Your task to perform on an android device: change the clock style Image 0: 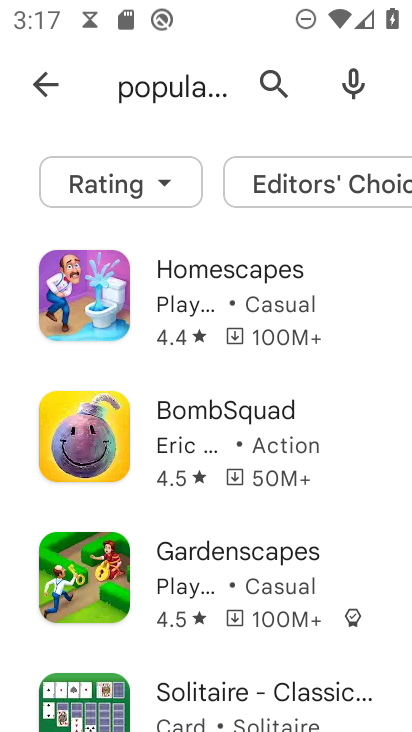
Step 0: press home button
Your task to perform on an android device: change the clock style Image 1: 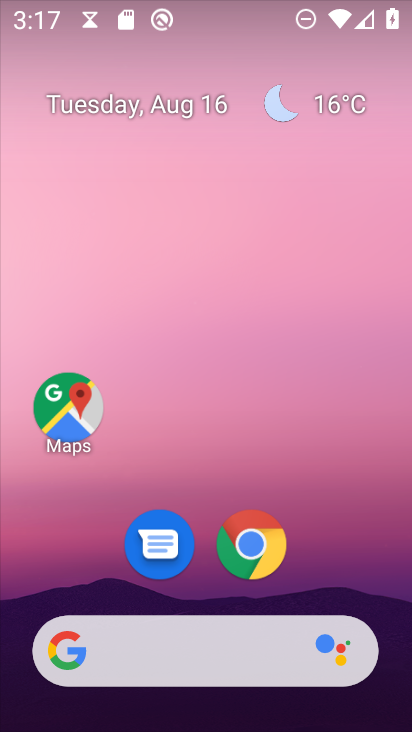
Step 1: drag from (201, 649) to (234, 86)
Your task to perform on an android device: change the clock style Image 2: 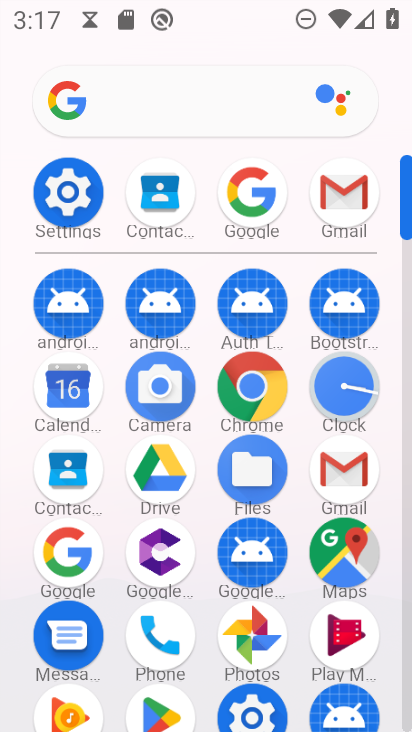
Step 2: click (341, 387)
Your task to perform on an android device: change the clock style Image 3: 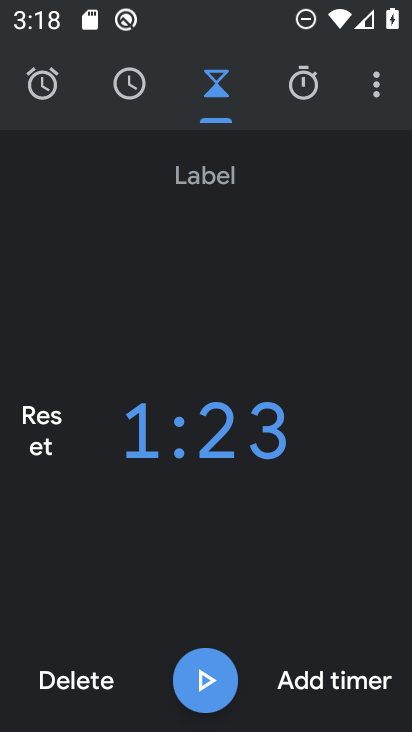
Step 3: click (373, 84)
Your task to perform on an android device: change the clock style Image 4: 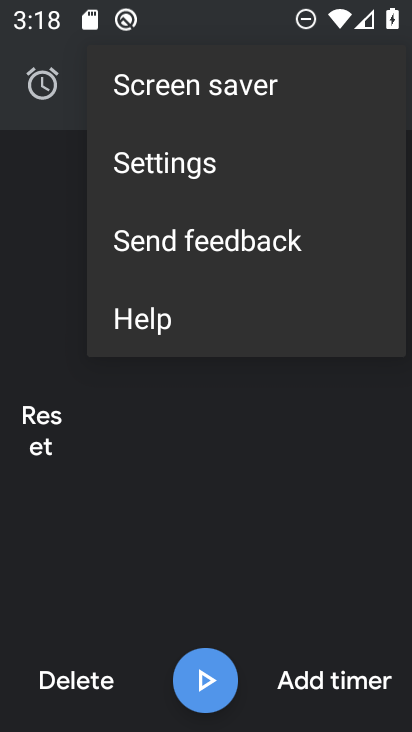
Step 4: click (193, 162)
Your task to perform on an android device: change the clock style Image 5: 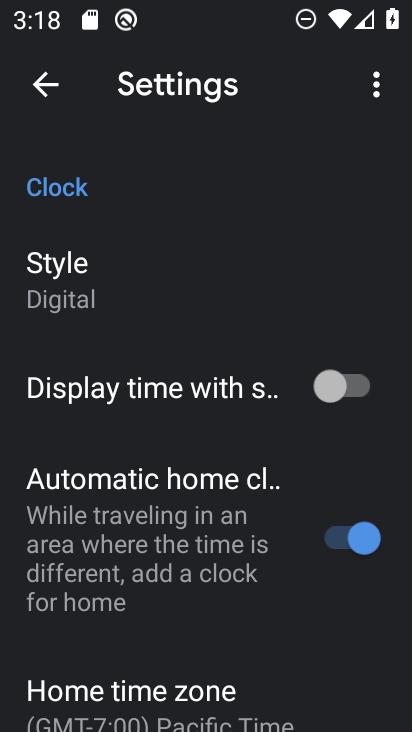
Step 5: click (93, 286)
Your task to perform on an android device: change the clock style Image 6: 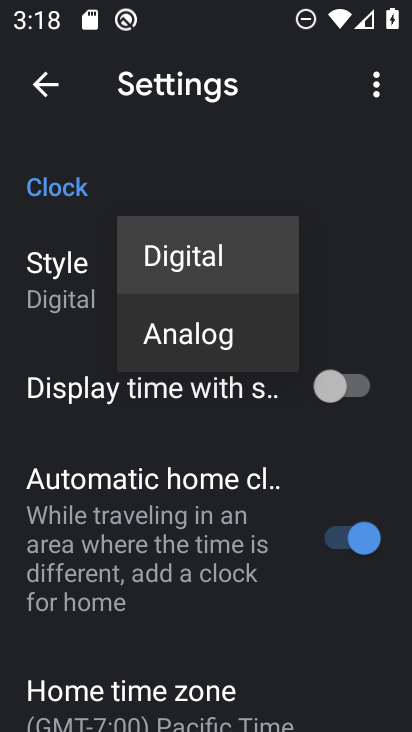
Step 6: click (184, 337)
Your task to perform on an android device: change the clock style Image 7: 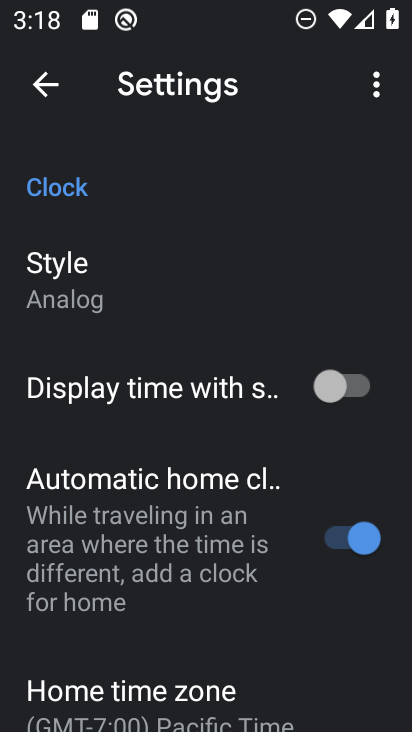
Step 7: task complete